Your task to perform on an android device: Go to privacy settings Image 0: 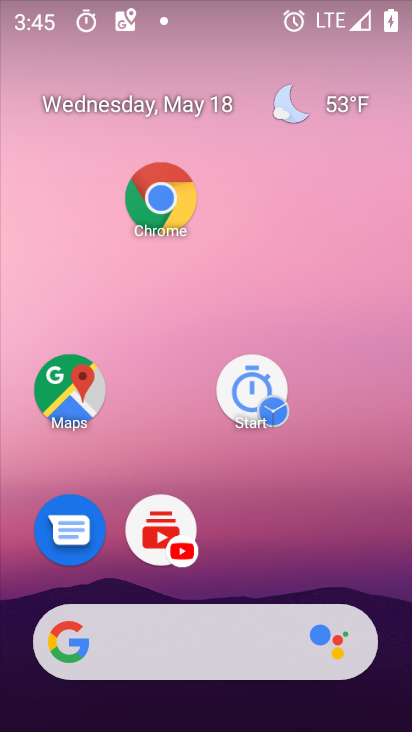
Step 0: drag from (305, 612) to (151, 123)
Your task to perform on an android device: Go to privacy settings Image 1: 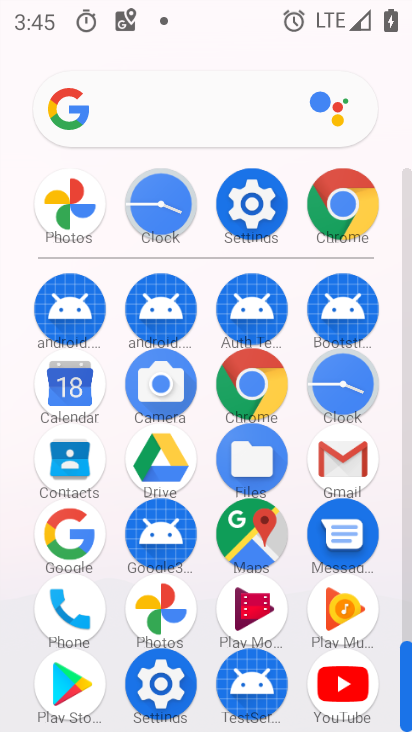
Step 1: click (229, 208)
Your task to perform on an android device: Go to privacy settings Image 2: 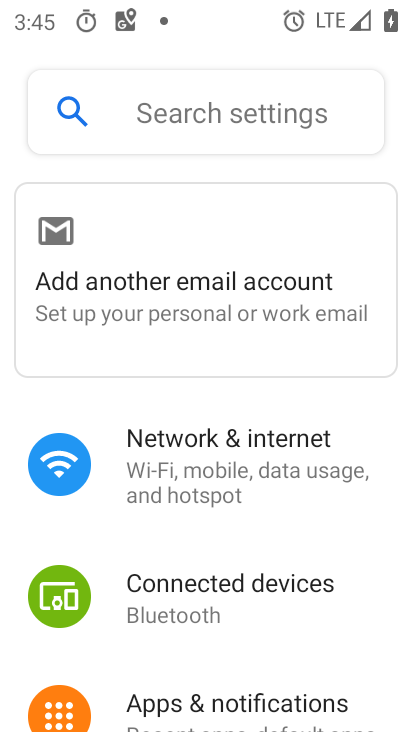
Step 2: drag from (207, 667) to (213, 373)
Your task to perform on an android device: Go to privacy settings Image 3: 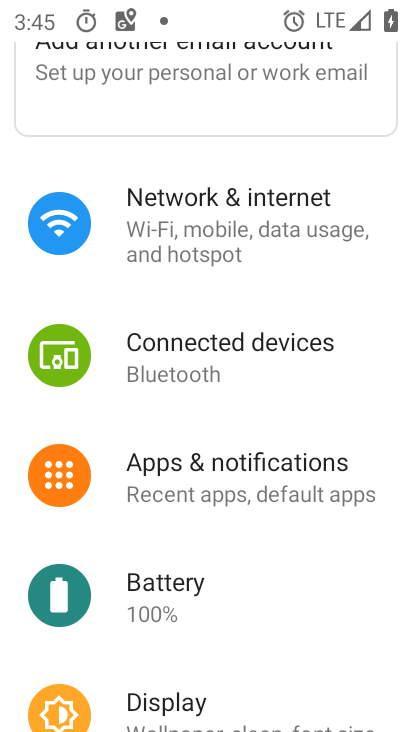
Step 3: drag from (216, 602) to (231, 378)
Your task to perform on an android device: Go to privacy settings Image 4: 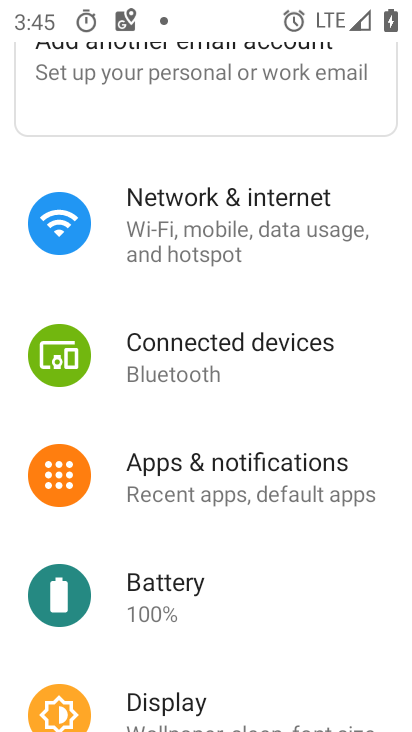
Step 4: drag from (195, 663) to (200, 319)
Your task to perform on an android device: Go to privacy settings Image 5: 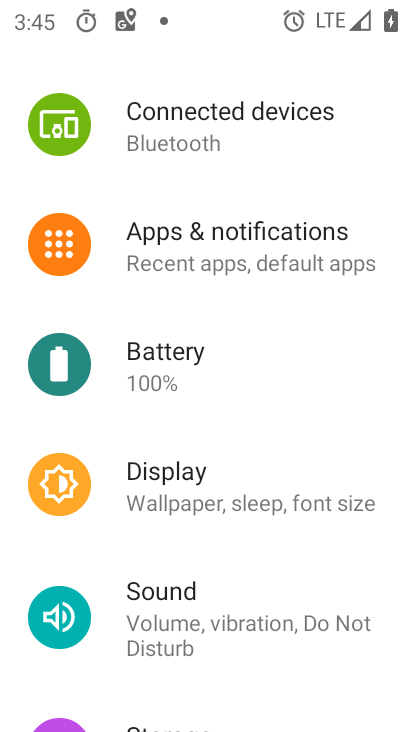
Step 5: drag from (195, 555) to (214, 335)
Your task to perform on an android device: Go to privacy settings Image 6: 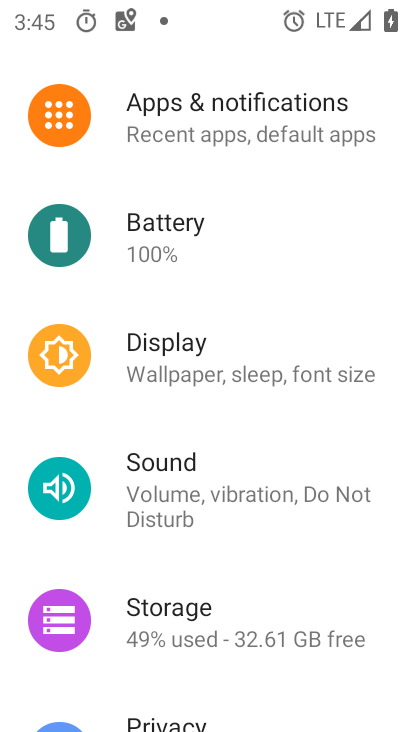
Step 6: drag from (130, 570) to (151, 182)
Your task to perform on an android device: Go to privacy settings Image 7: 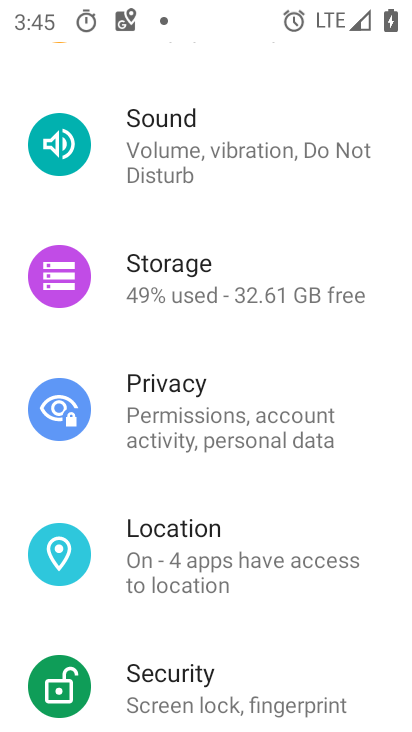
Step 7: drag from (182, 568) to (140, 224)
Your task to perform on an android device: Go to privacy settings Image 8: 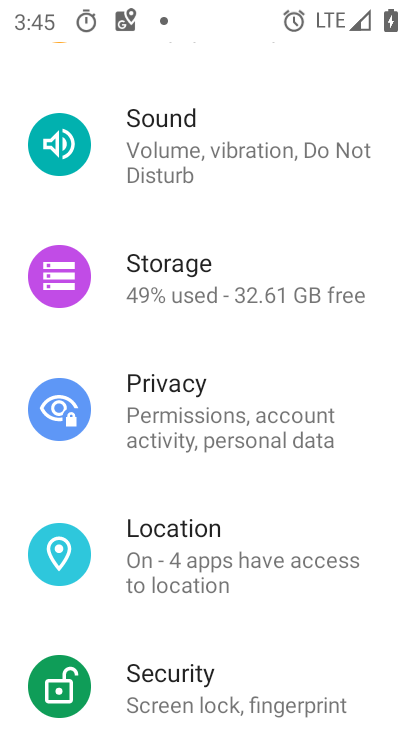
Step 8: click (173, 404)
Your task to perform on an android device: Go to privacy settings Image 9: 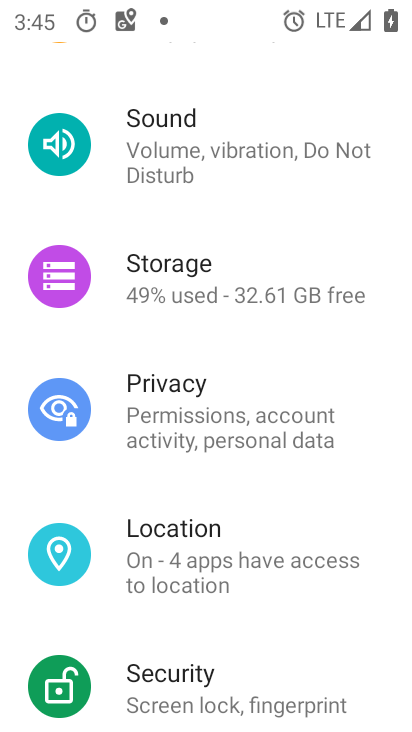
Step 9: click (172, 408)
Your task to perform on an android device: Go to privacy settings Image 10: 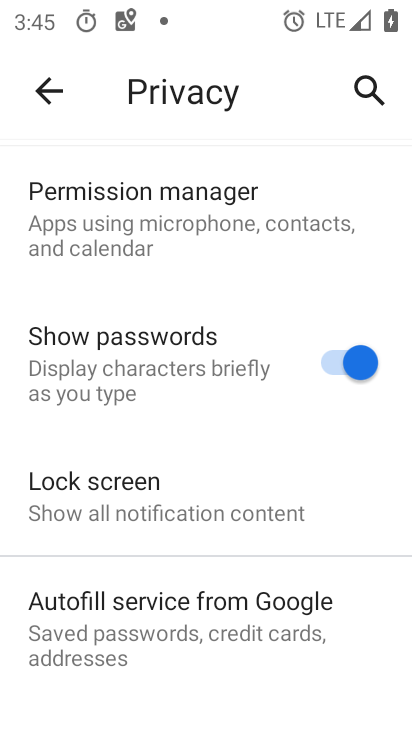
Step 10: task complete